Your task to perform on an android device: turn on translation in the chrome app Image 0: 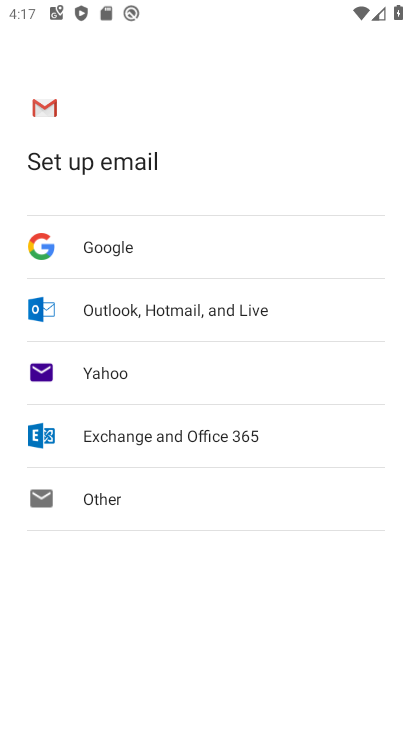
Step 0: press home button
Your task to perform on an android device: turn on translation in the chrome app Image 1: 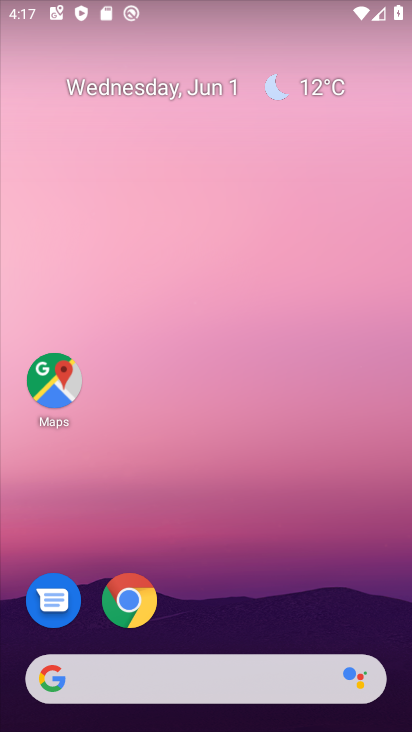
Step 1: click (133, 598)
Your task to perform on an android device: turn on translation in the chrome app Image 2: 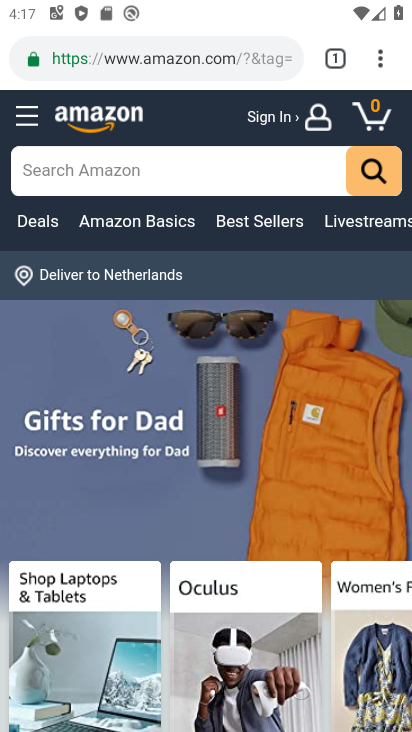
Step 2: click (379, 65)
Your task to perform on an android device: turn on translation in the chrome app Image 3: 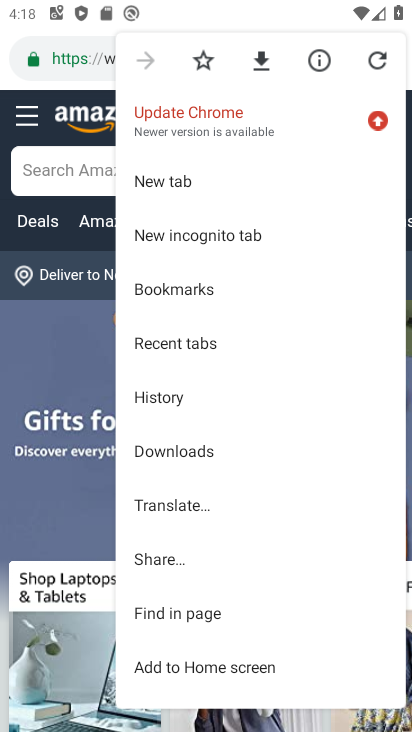
Step 3: drag from (255, 644) to (273, 253)
Your task to perform on an android device: turn on translation in the chrome app Image 4: 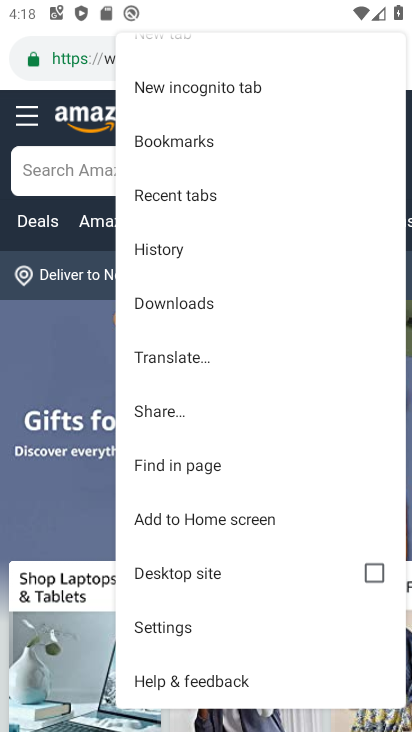
Step 4: click (162, 629)
Your task to perform on an android device: turn on translation in the chrome app Image 5: 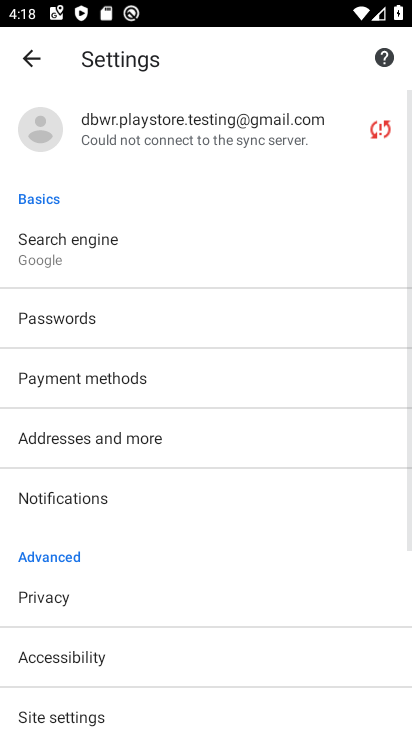
Step 5: drag from (207, 651) to (252, 345)
Your task to perform on an android device: turn on translation in the chrome app Image 6: 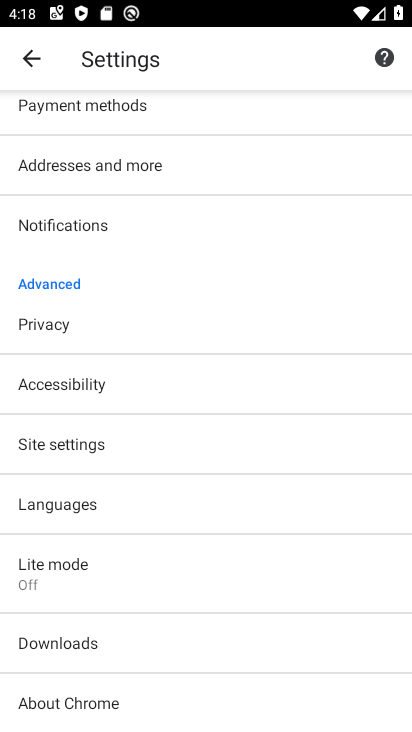
Step 6: click (50, 508)
Your task to perform on an android device: turn on translation in the chrome app Image 7: 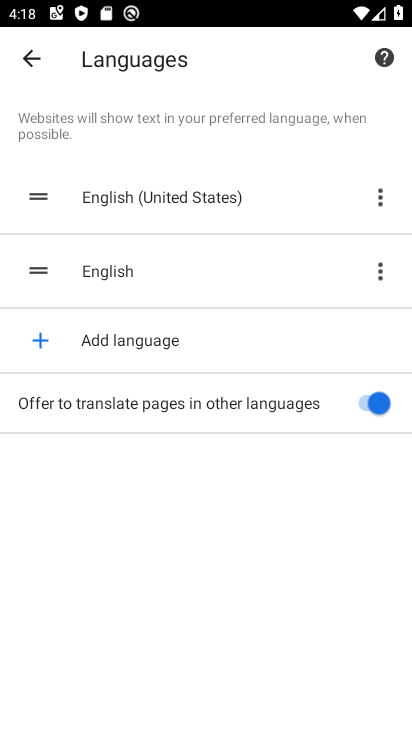
Step 7: task complete